Your task to perform on an android device: Open Reddit.com Image 0: 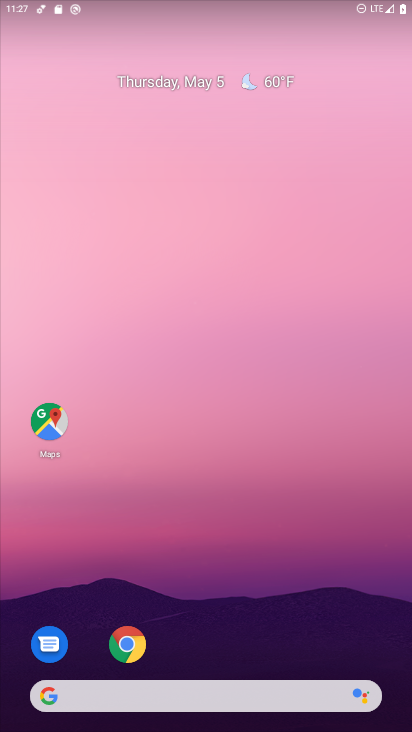
Step 0: drag from (357, 599) to (371, 172)
Your task to perform on an android device: Open Reddit.com Image 1: 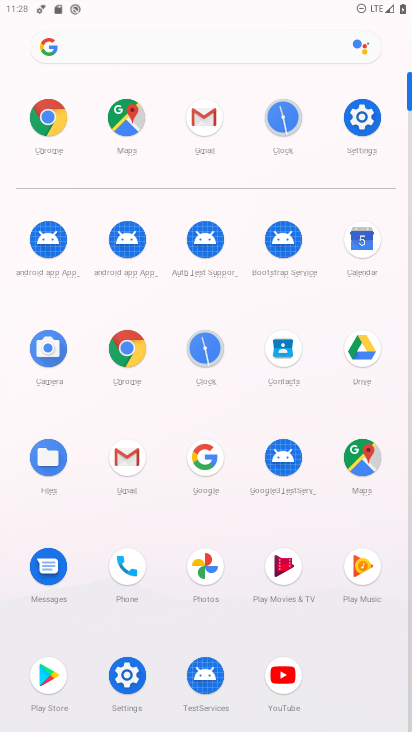
Step 1: click (118, 352)
Your task to perform on an android device: Open Reddit.com Image 2: 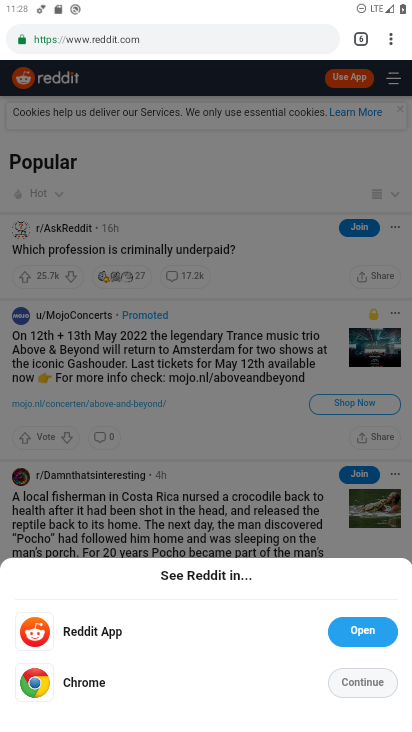
Step 2: task complete